Your task to perform on an android device: What's the weather? Image 0: 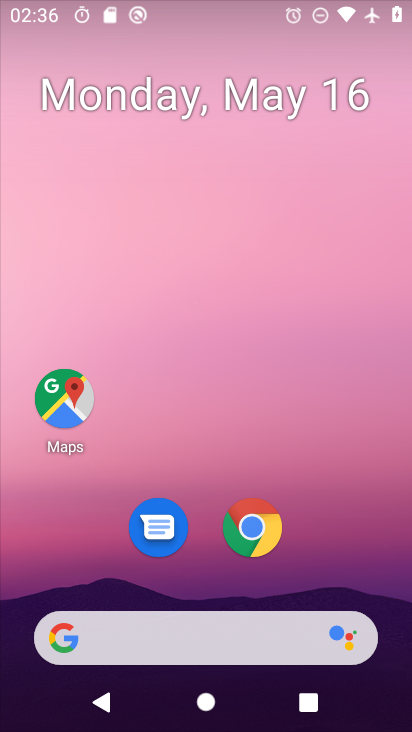
Step 0: press home button
Your task to perform on an android device: What's the weather? Image 1: 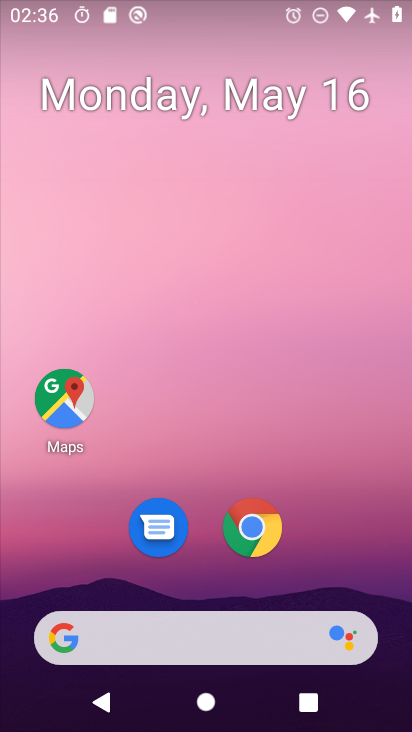
Step 1: click (73, 640)
Your task to perform on an android device: What's the weather? Image 2: 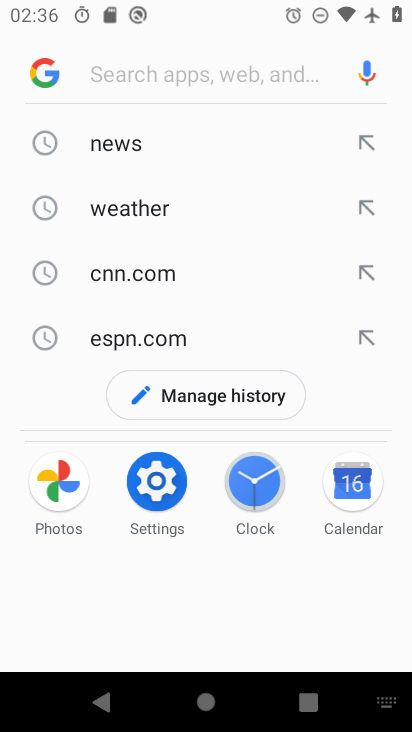
Step 2: click (150, 205)
Your task to perform on an android device: What's the weather? Image 3: 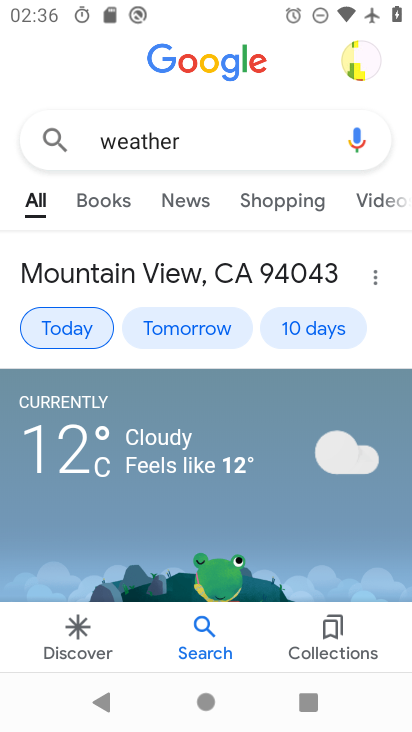
Step 3: task complete